Your task to perform on an android device: Go to eBay Image 0: 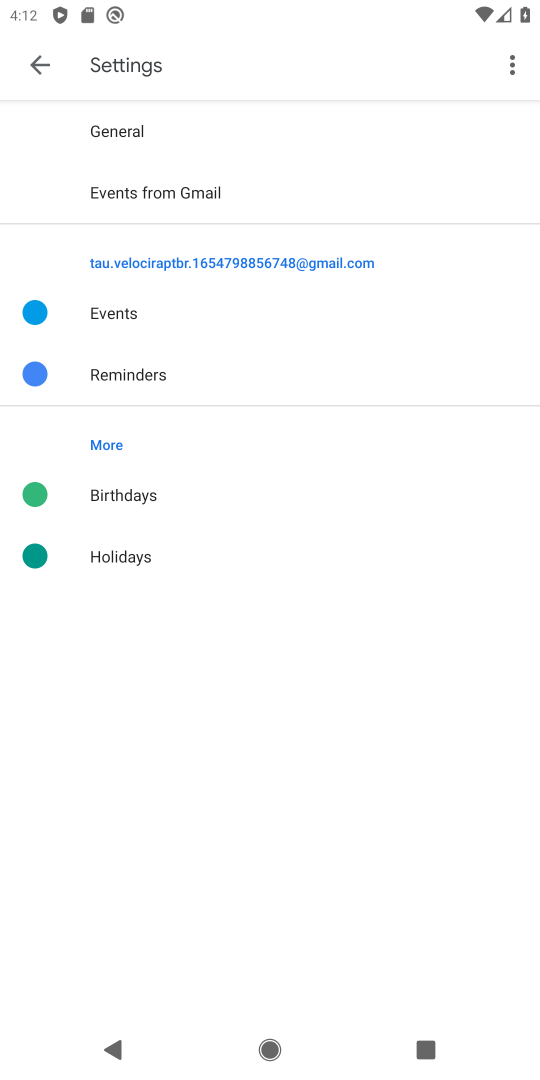
Step 0: press home button
Your task to perform on an android device: Go to eBay Image 1: 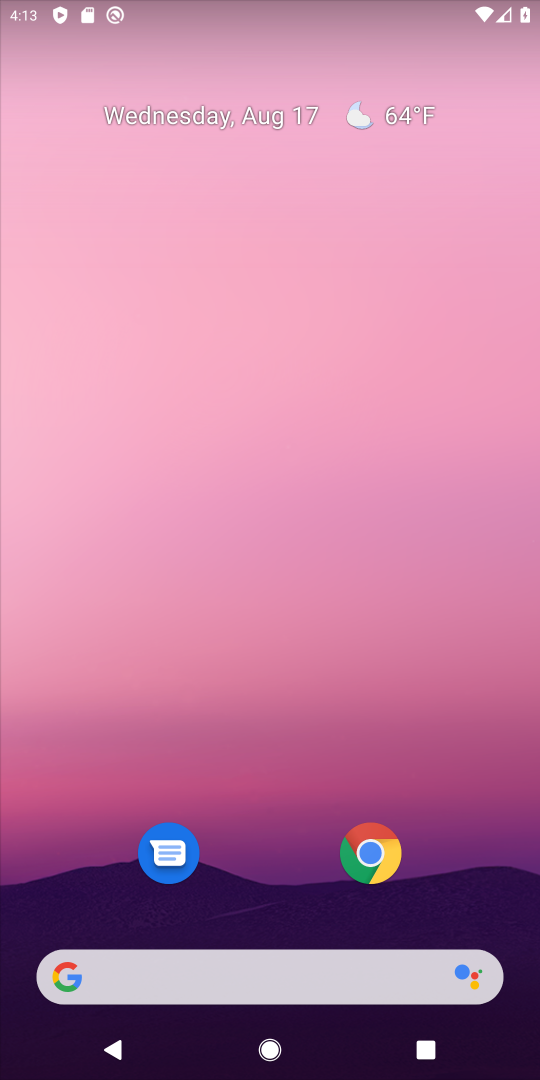
Step 1: click (373, 854)
Your task to perform on an android device: Go to eBay Image 2: 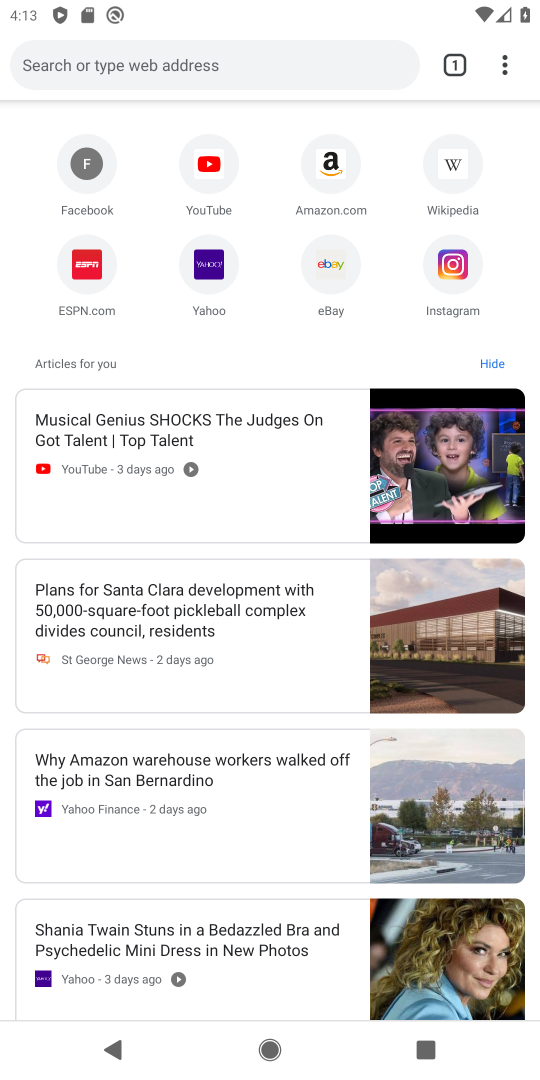
Step 2: click (197, 67)
Your task to perform on an android device: Go to eBay Image 3: 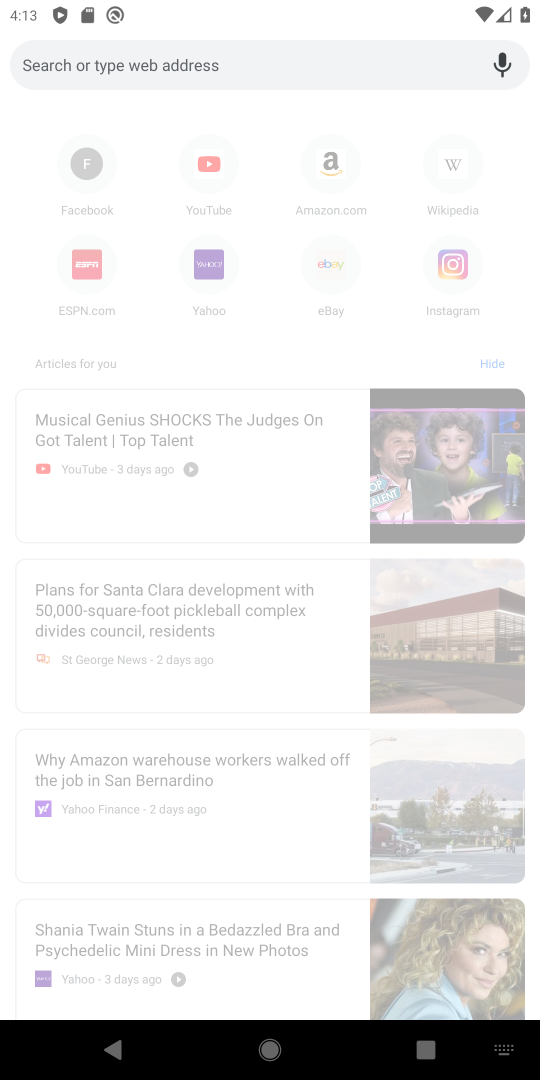
Step 3: type "ebay"
Your task to perform on an android device: Go to eBay Image 4: 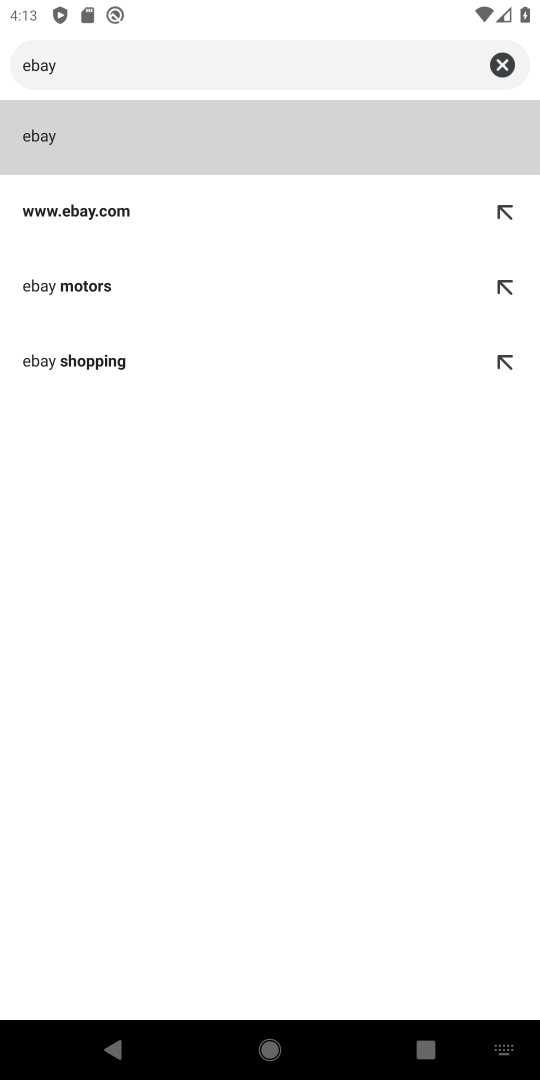
Step 4: click (47, 124)
Your task to perform on an android device: Go to eBay Image 5: 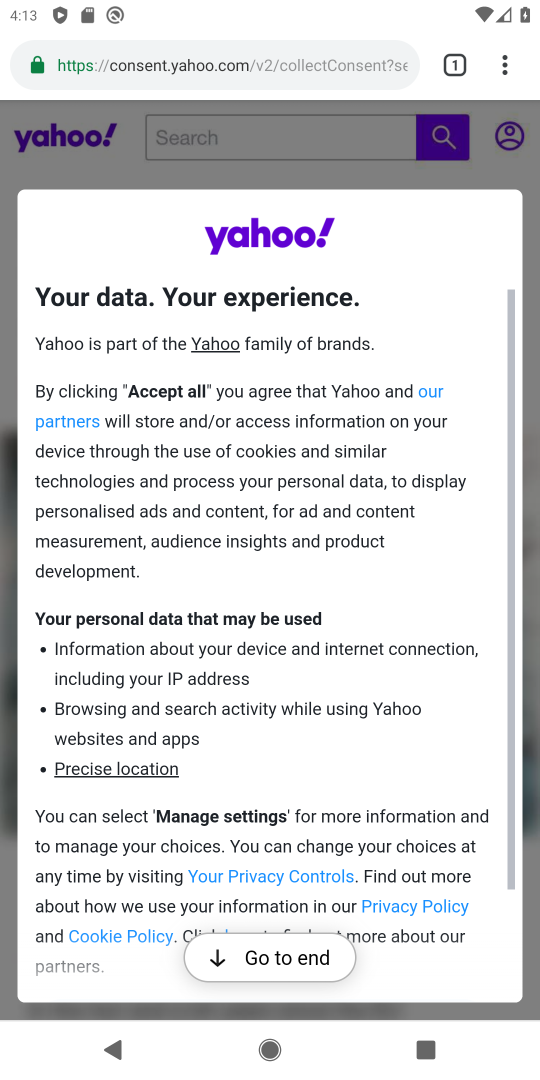
Step 5: click (215, 958)
Your task to perform on an android device: Go to eBay Image 6: 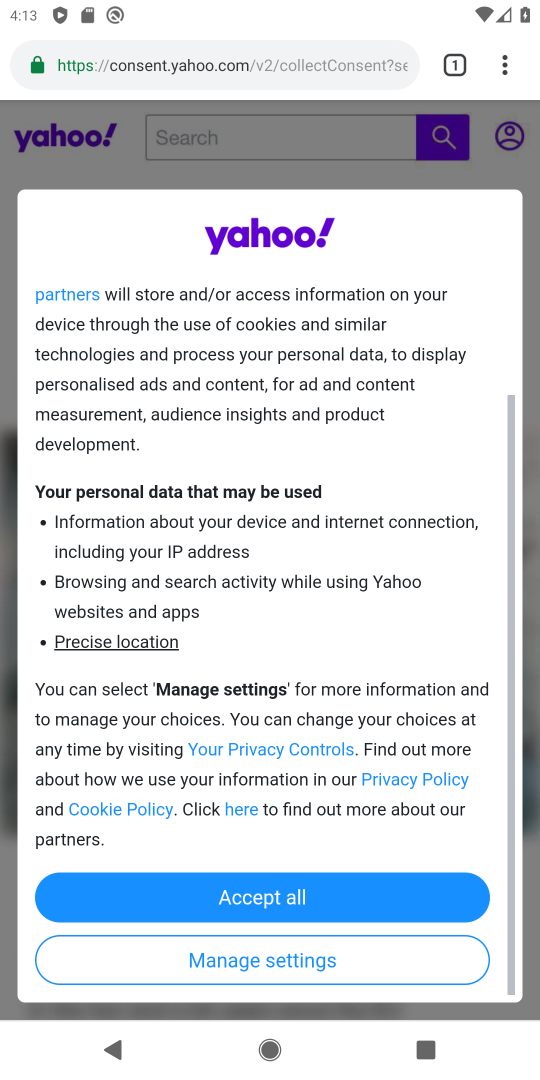
Step 6: click (259, 897)
Your task to perform on an android device: Go to eBay Image 7: 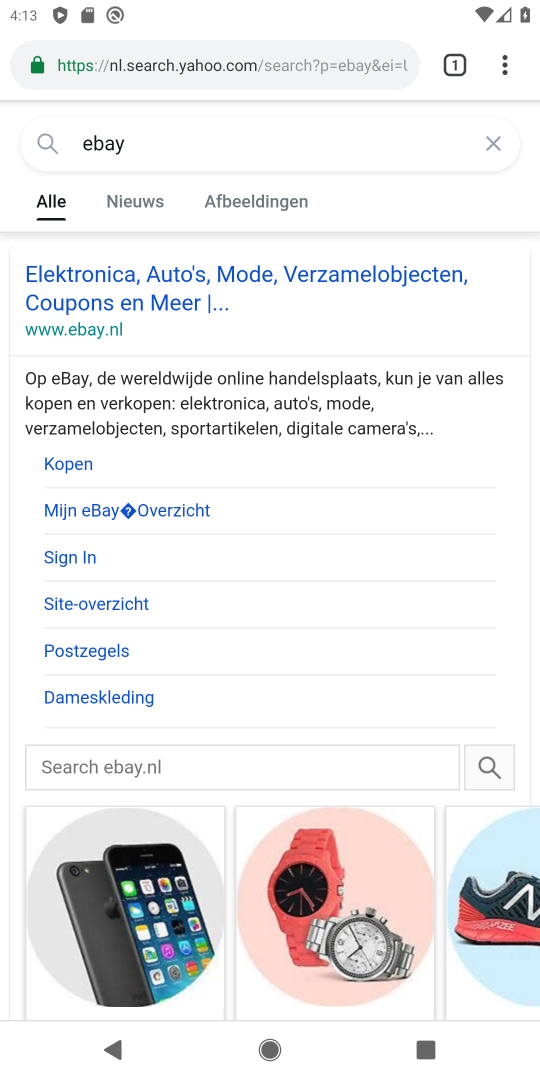
Step 7: click (102, 318)
Your task to perform on an android device: Go to eBay Image 8: 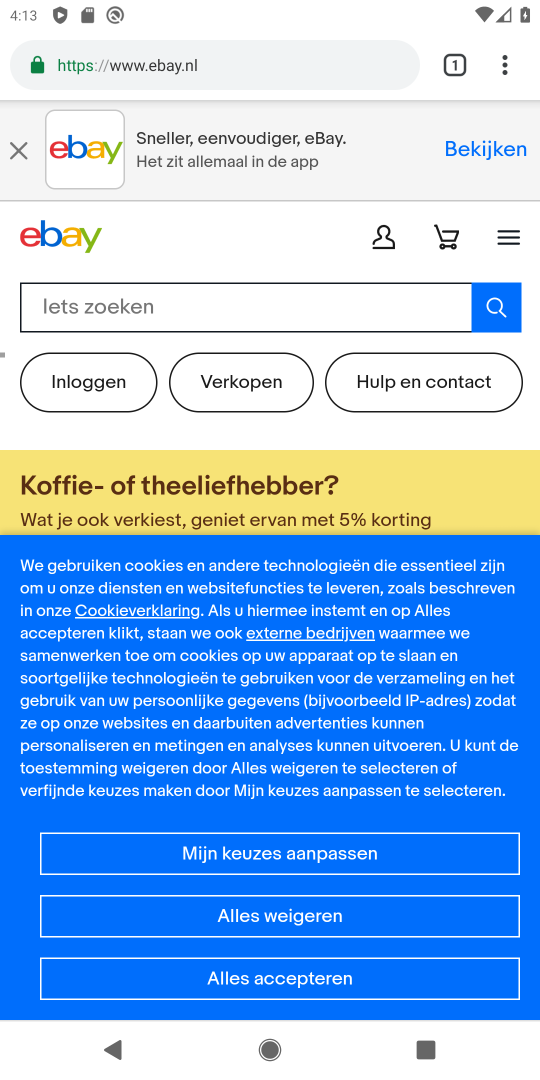
Step 8: drag from (470, 833) to (429, 316)
Your task to perform on an android device: Go to eBay Image 9: 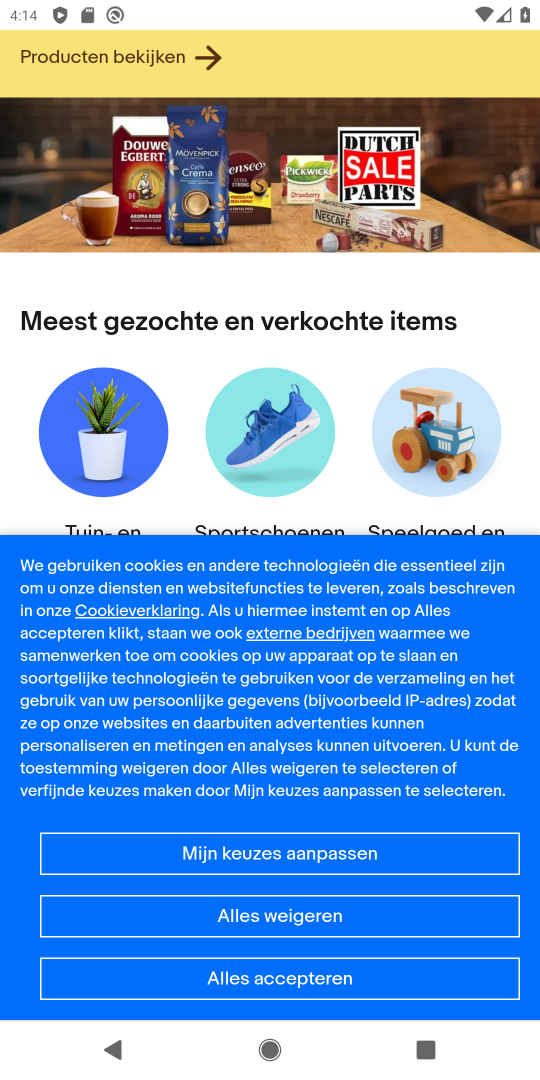
Step 9: click (268, 981)
Your task to perform on an android device: Go to eBay Image 10: 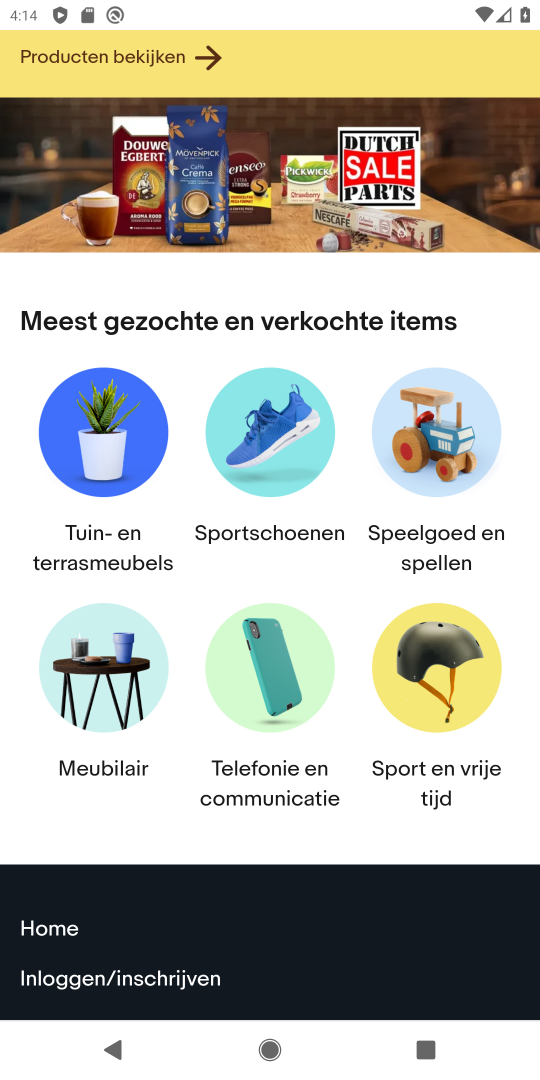
Step 10: task complete